Your task to perform on an android device: turn on the 24-hour format for clock Image 0: 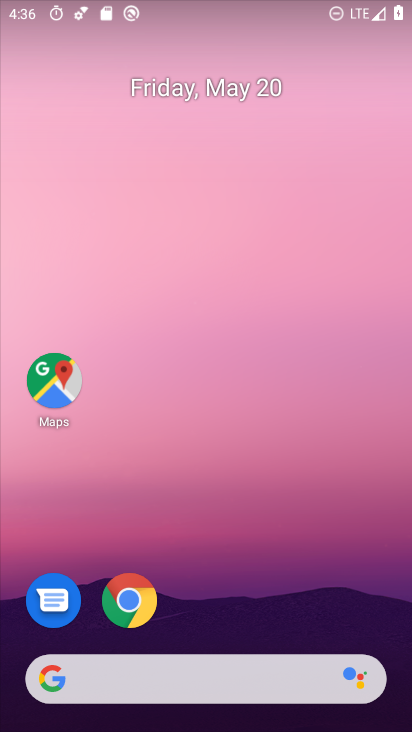
Step 0: drag from (221, 622) to (247, 125)
Your task to perform on an android device: turn on the 24-hour format for clock Image 1: 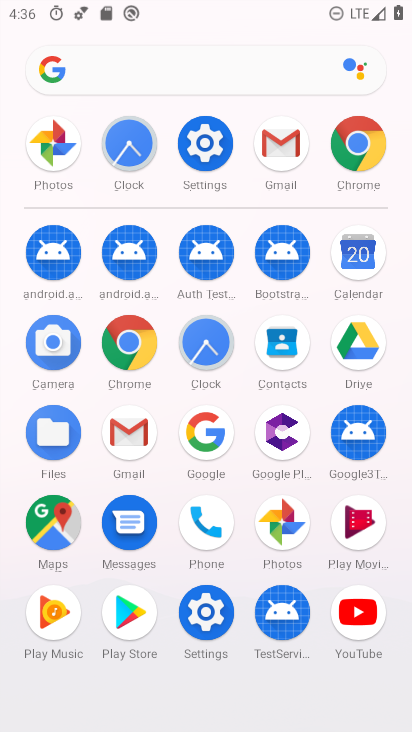
Step 1: click (216, 355)
Your task to perform on an android device: turn on the 24-hour format for clock Image 2: 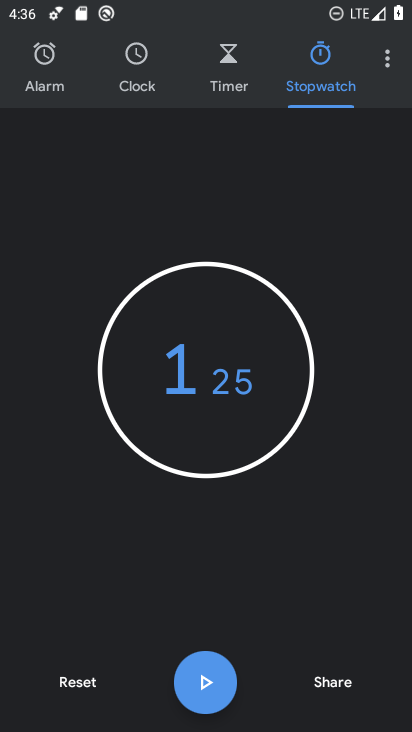
Step 2: click (389, 60)
Your task to perform on an android device: turn on the 24-hour format for clock Image 3: 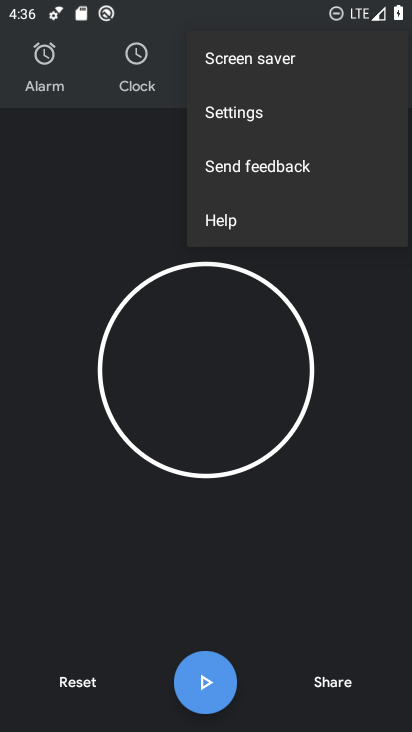
Step 3: click (229, 114)
Your task to perform on an android device: turn on the 24-hour format for clock Image 4: 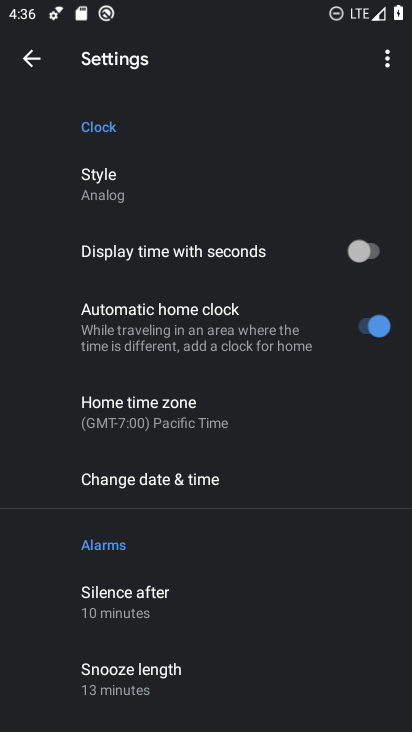
Step 4: click (186, 480)
Your task to perform on an android device: turn on the 24-hour format for clock Image 5: 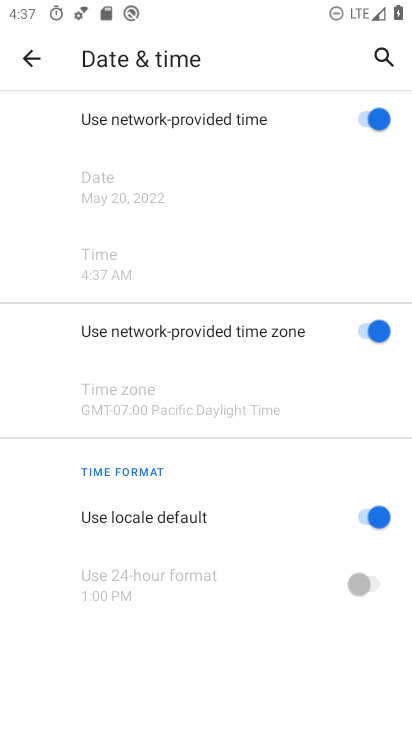
Step 5: click (373, 519)
Your task to perform on an android device: turn on the 24-hour format for clock Image 6: 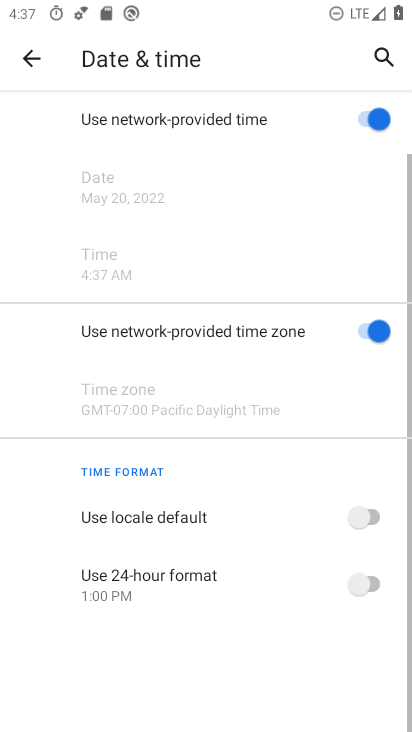
Step 6: click (372, 587)
Your task to perform on an android device: turn on the 24-hour format for clock Image 7: 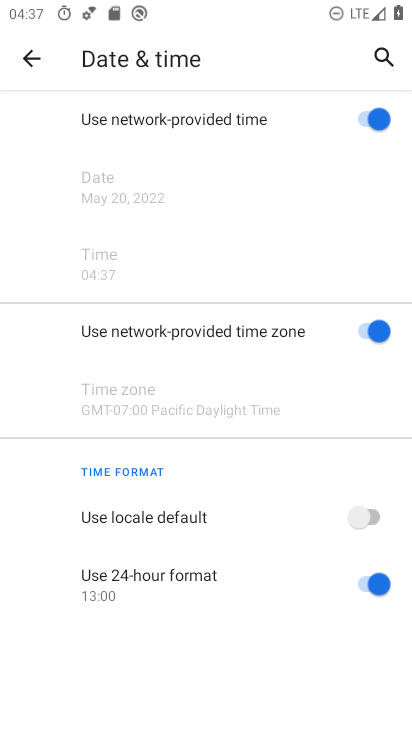
Step 7: task complete